Your task to perform on an android device: Go to internet settings Image 0: 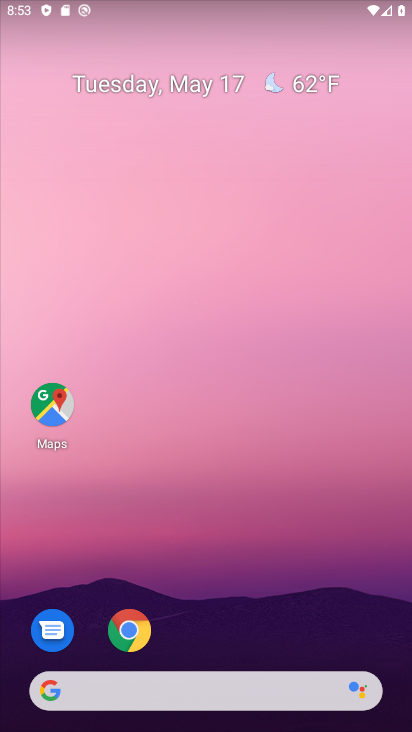
Step 0: drag from (230, 613) to (213, 275)
Your task to perform on an android device: Go to internet settings Image 1: 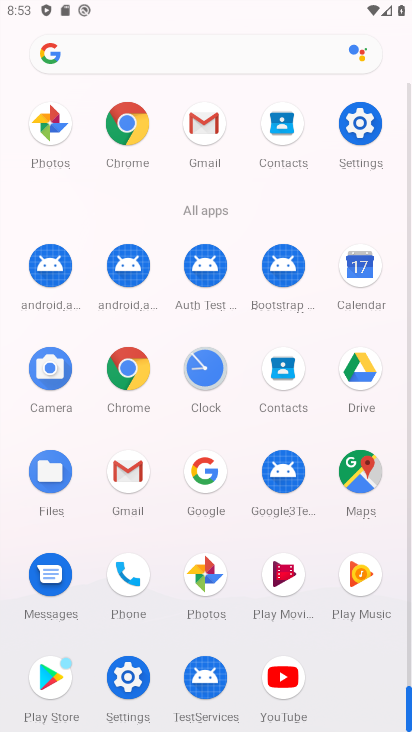
Step 1: click (362, 159)
Your task to perform on an android device: Go to internet settings Image 2: 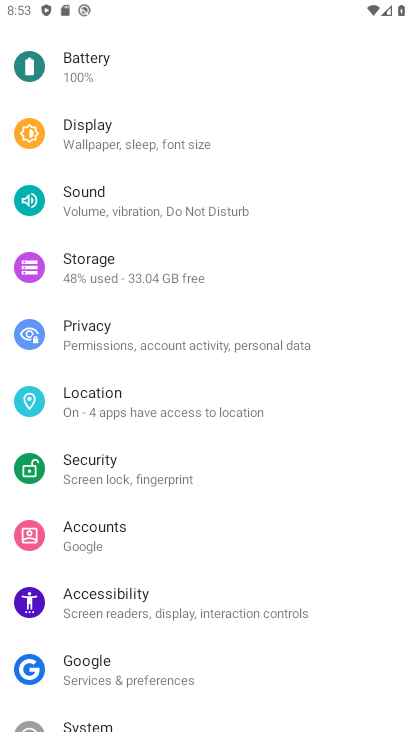
Step 2: drag from (203, 264) to (207, 469)
Your task to perform on an android device: Go to internet settings Image 3: 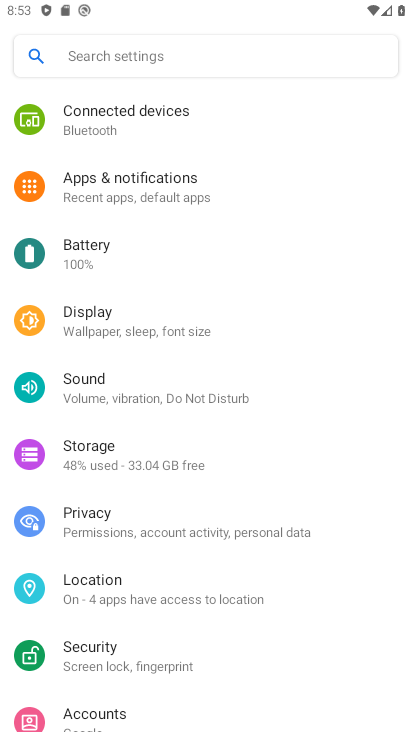
Step 3: drag from (182, 235) to (168, 465)
Your task to perform on an android device: Go to internet settings Image 4: 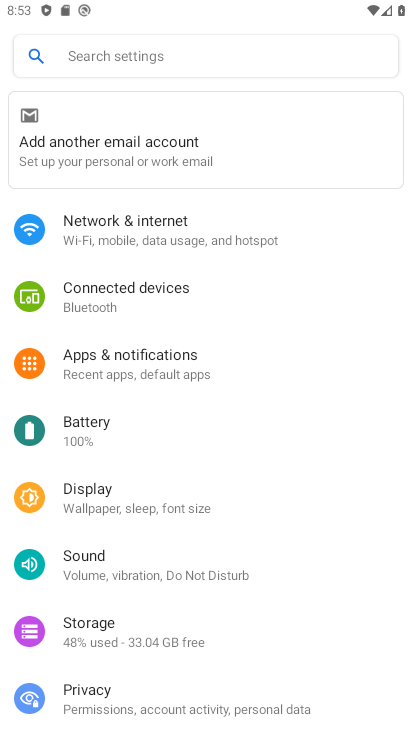
Step 4: click (135, 228)
Your task to perform on an android device: Go to internet settings Image 5: 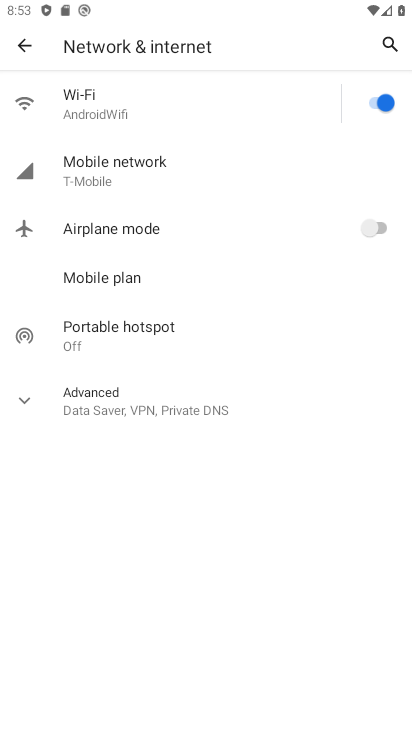
Step 5: task complete